Your task to perform on an android device: turn on javascript in the chrome app Image 0: 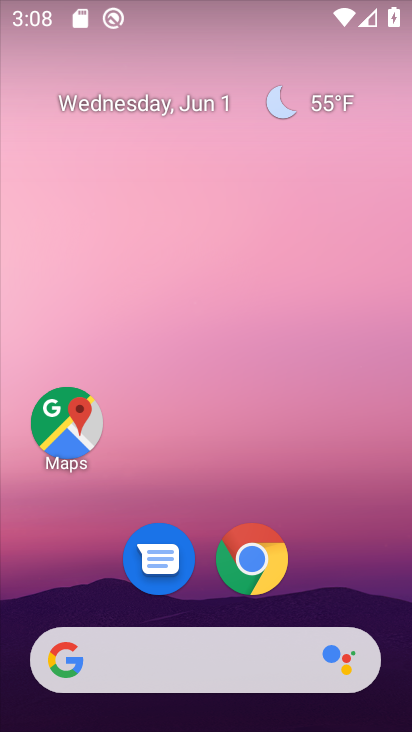
Step 0: click (248, 554)
Your task to perform on an android device: turn on javascript in the chrome app Image 1: 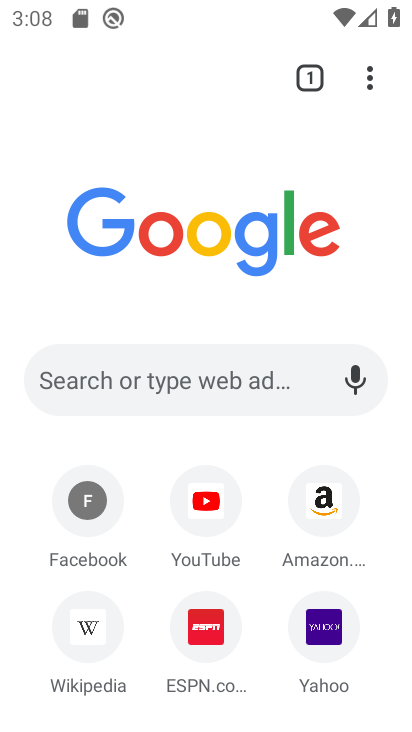
Step 1: click (375, 81)
Your task to perform on an android device: turn on javascript in the chrome app Image 2: 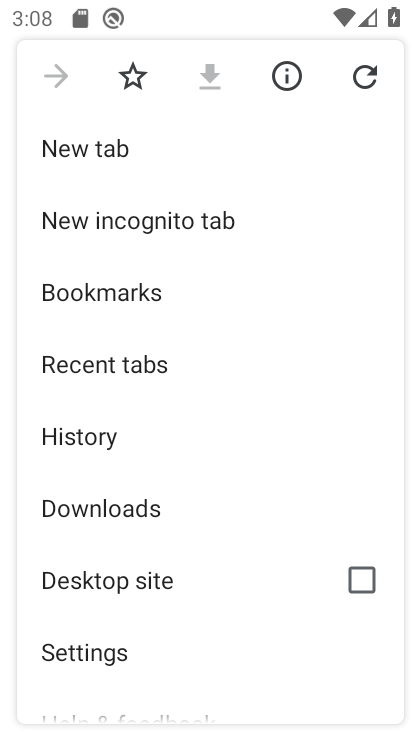
Step 2: drag from (109, 606) to (171, 158)
Your task to perform on an android device: turn on javascript in the chrome app Image 3: 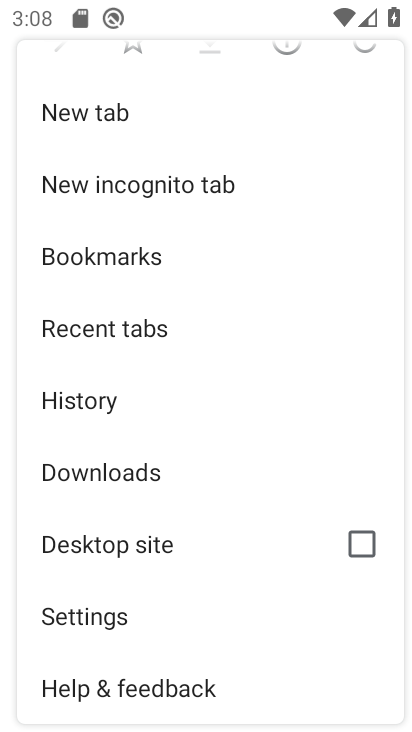
Step 3: click (128, 608)
Your task to perform on an android device: turn on javascript in the chrome app Image 4: 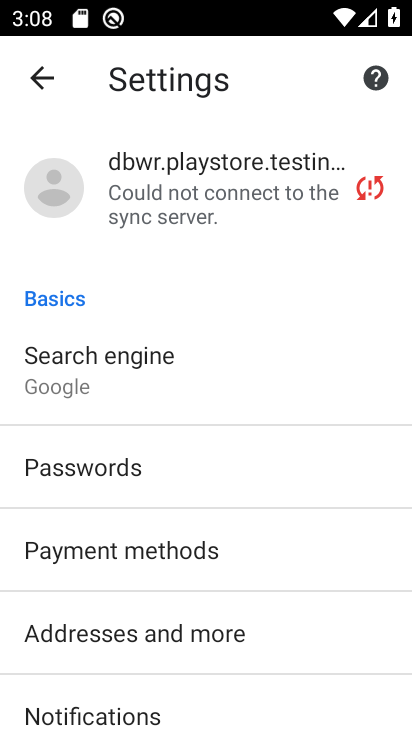
Step 4: drag from (207, 531) to (266, 124)
Your task to perform on an android device: turn on javascript in the chrome app Image 5: 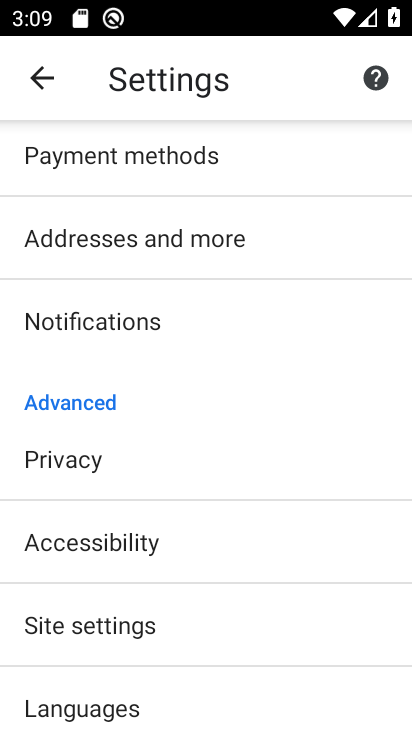
Step 5: click (134, 615)
Your task to perform on an android device: turn on javascript in the chrome app Image 6: 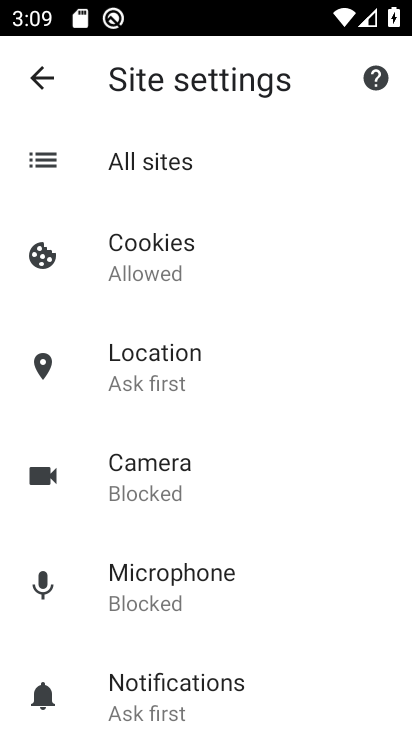
Step 6: drag from (149, 592) to (166, 300)
Your task to perform on an android device: turn on javascript in the chrome app Image 7: 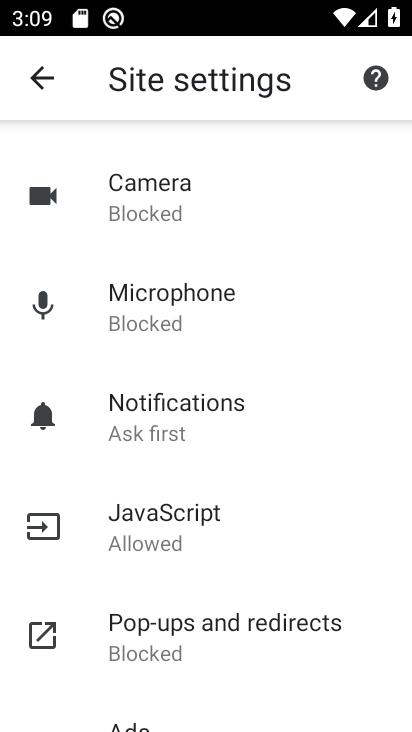
Step 7: click (170, 537)
Your task to perform on an android device: turn on javascript in the chrome app Image 8: 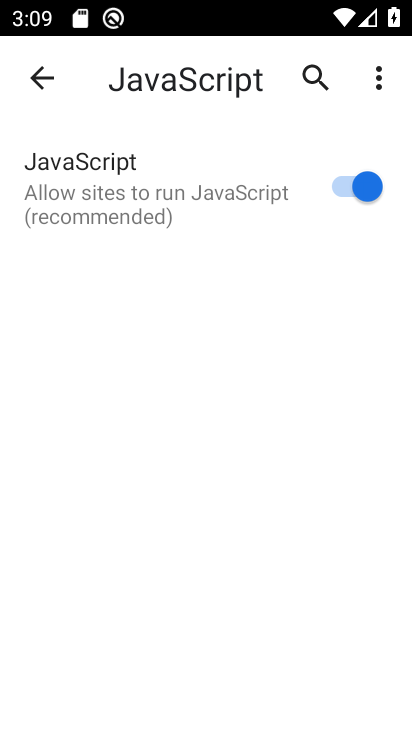
Step 8: task complete